Your task to perform on an android device: turn off javascript in the chrome app Image 0: 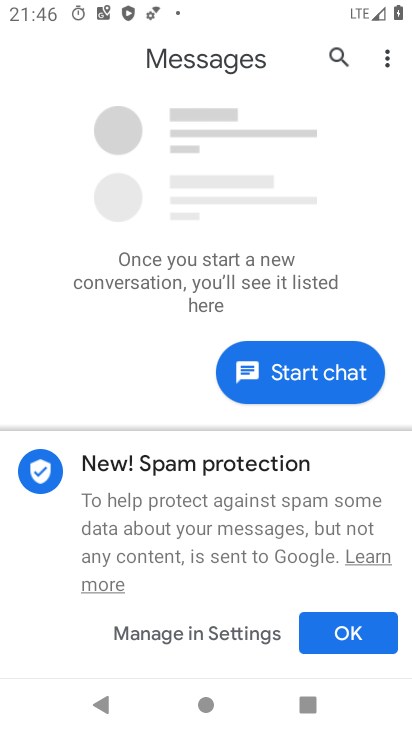
Step 0: press home button
Your task to perform on an android device: turn off javascript in the chrome app Image 1: 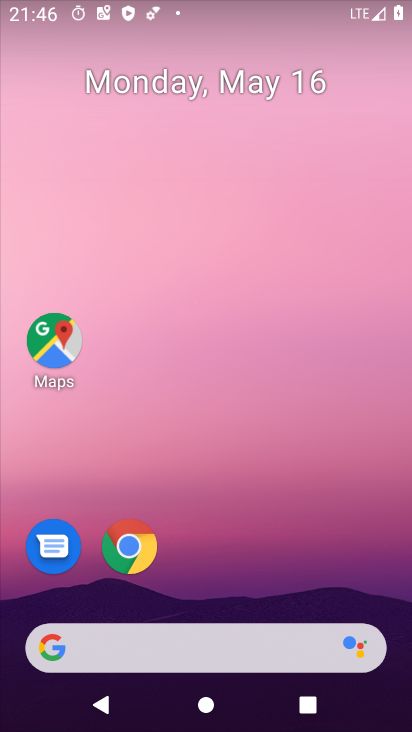
Step 1: drag from (317, 679) to (219, 231)
Your task to perform on an android device: turn off javascript in the chrome app Image 2: 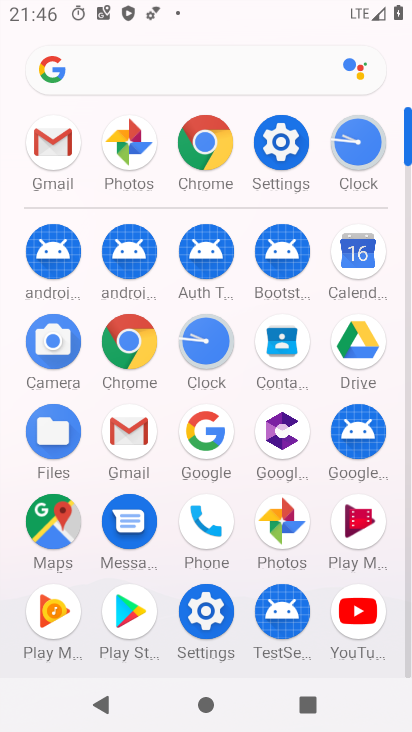
Step 2: click (208, 168)
Your task to perform on an android device: turn off javascript in the chrome app Image 3: 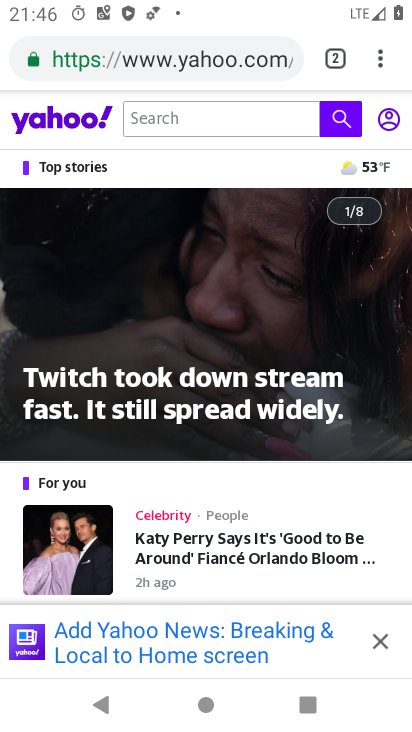
Step 3: click (379, 68)
Your task to perform on an android device: turn off javascript in the chrome app Image 4: 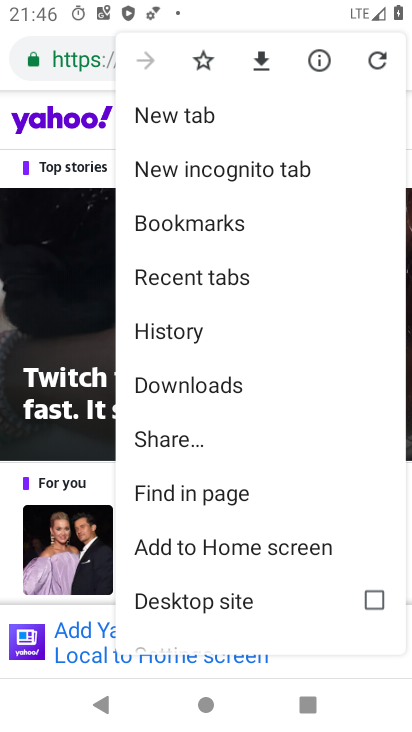
Step 4: drag from (215, 552) to (298, 281)
Your task to perform on an android device: turn off javascript in the chrome app Image 5: 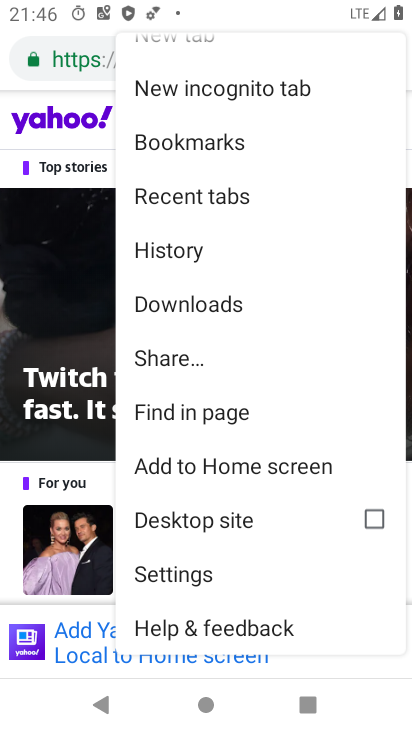
Step 5: click (173, 580)
Your task to perform on an android device: turn off javascript in the chrome app Image 6: 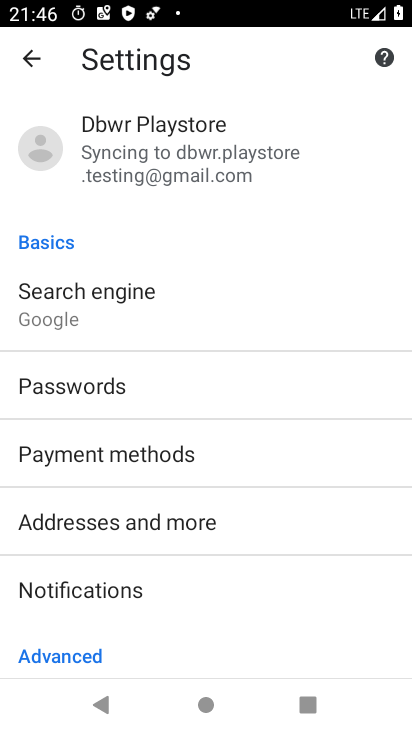
Step 6: drag from (173, 612) to (160, 403)
Your task to perform on an android device: turn off javascript in the chrome app Image 7: 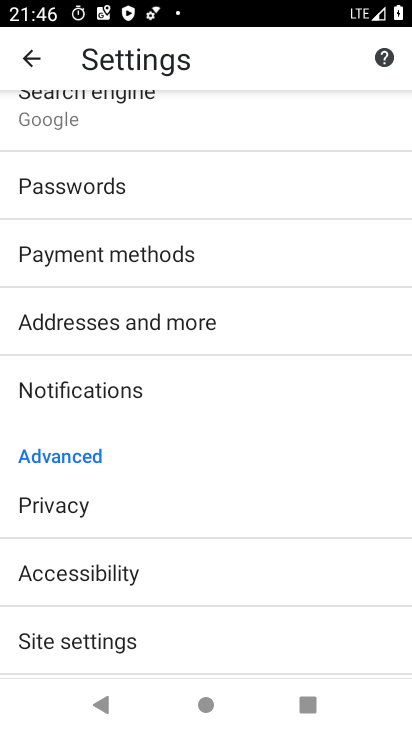
Step 7: drag from (160, 561) to (169, 382)
Your task to perform on an android device: turn off javascript in the chrome app Image 8: 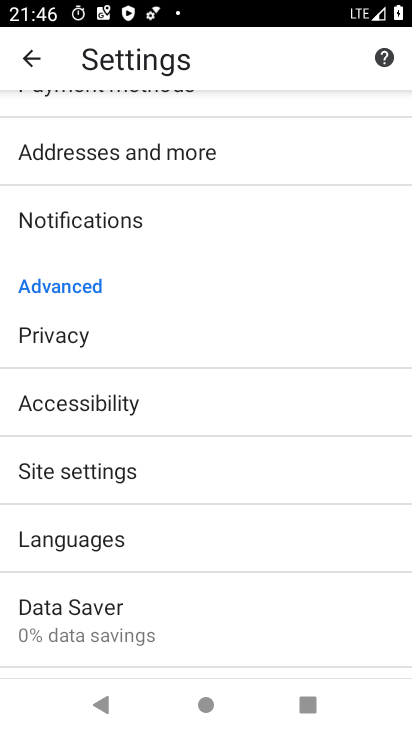
Step 8: click (96, 463)
Your task to perform on an android device: turn off javascript in the chrome app Image 9: 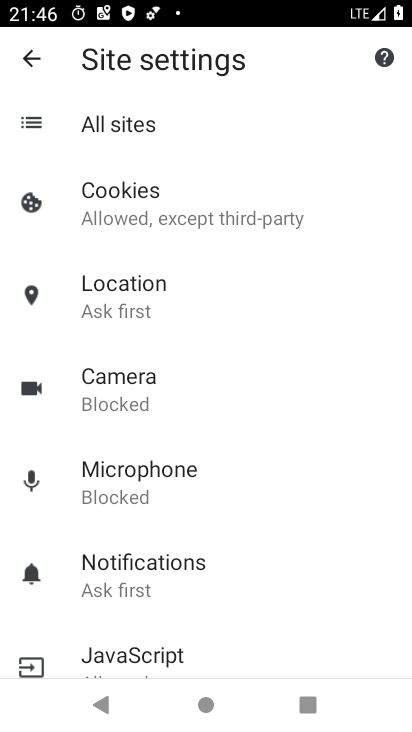
Step 9: click (145, 658)
Your task to perform on an android device: turn off javascript in the chrome app Image 10: 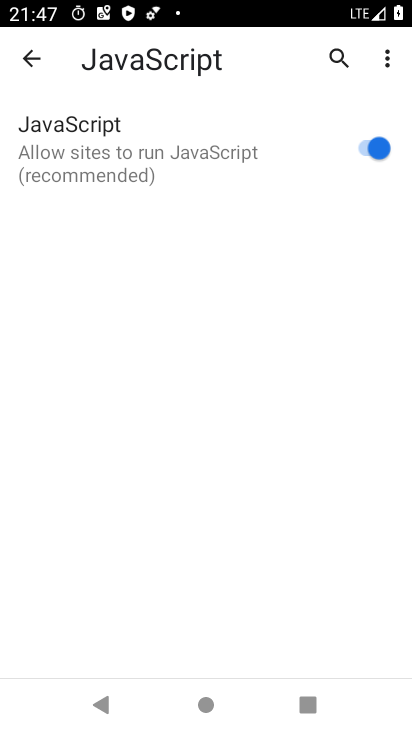
Step 10: click (357, 146)
Your task to perform on an android device: turn off javascript in the chrome app Image 11: 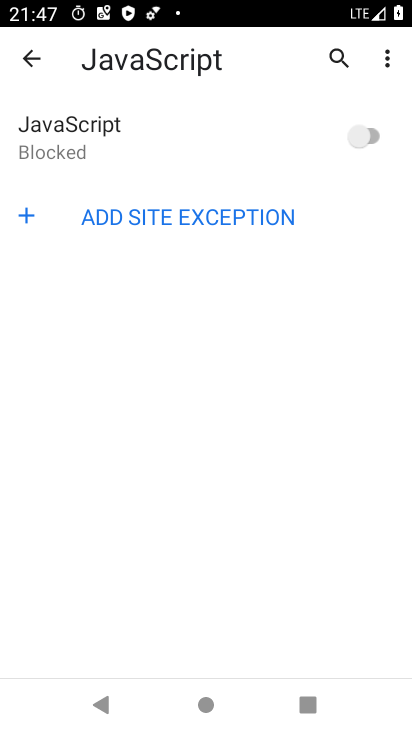
Step 11: task complete